Your task to perform on an android device: turn off priority inbox in the gmail app Image 0: 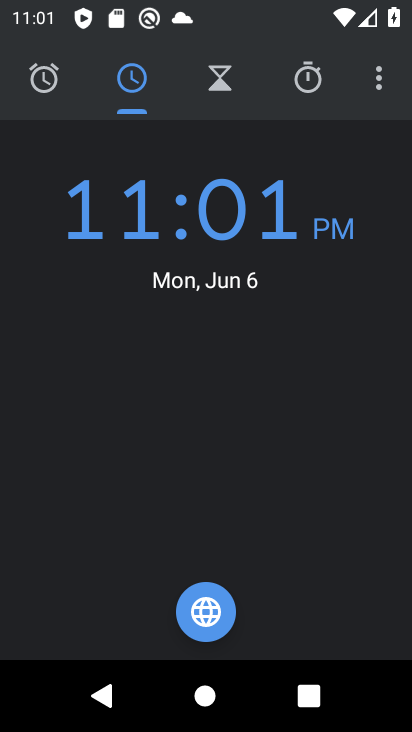
Step 0: press home button
Your task to perform on an android device: turn off priority inbox in the gmail app Image 1: 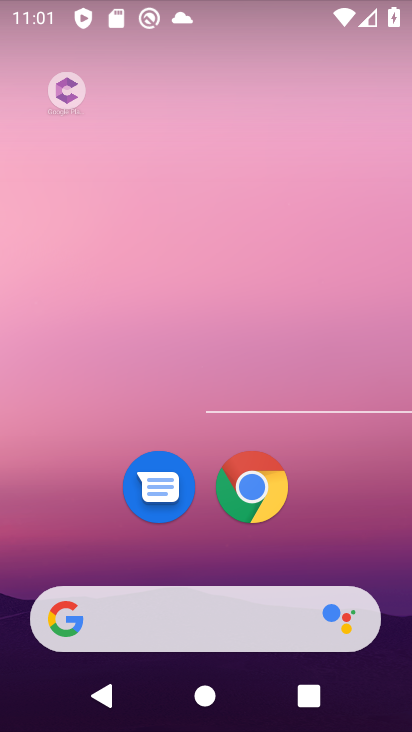
Step 1: drag from (326, 500) to (330, 117)
Your task to perform on an android device: turn off priority inbox in the gmail app Image 2: 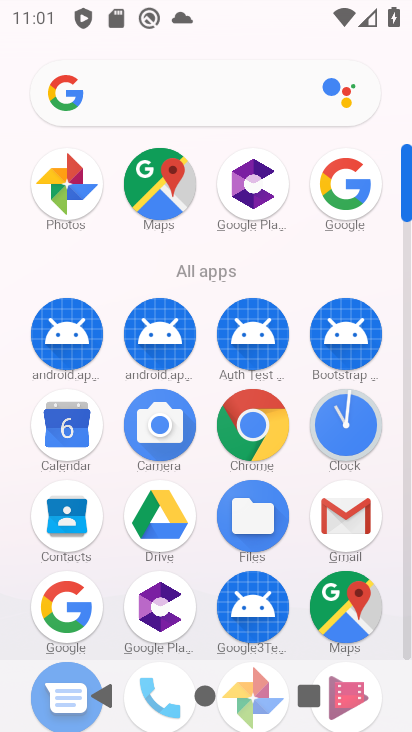
Step 2: click (325, 540)
Your task to perform on an android device: turn off priority inbox in the gmail app Image 3: 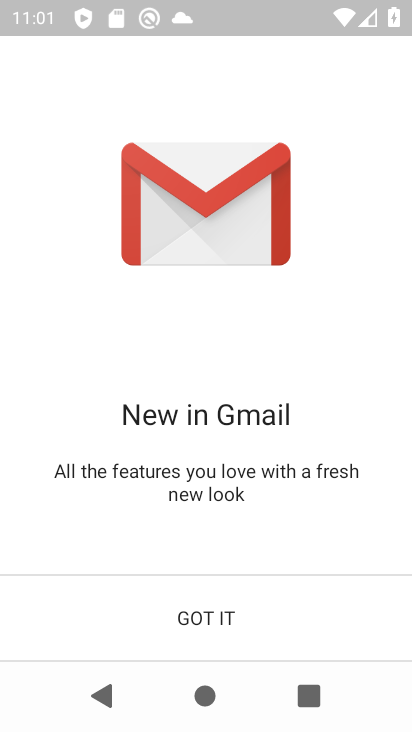
Step 3: click (147, 591)
Your task to perform on an android device: turn off priority inbox in the gmail app Image 4: 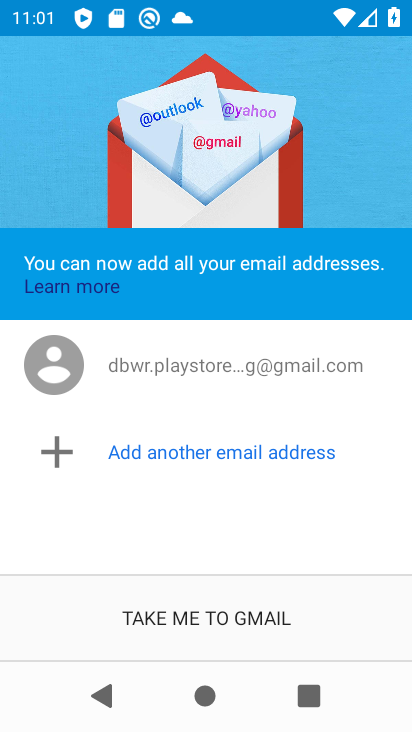
Step 4: click (215, 628)
Your task to perform on an android device: turn off priority inbox in the gmail app Image 5: 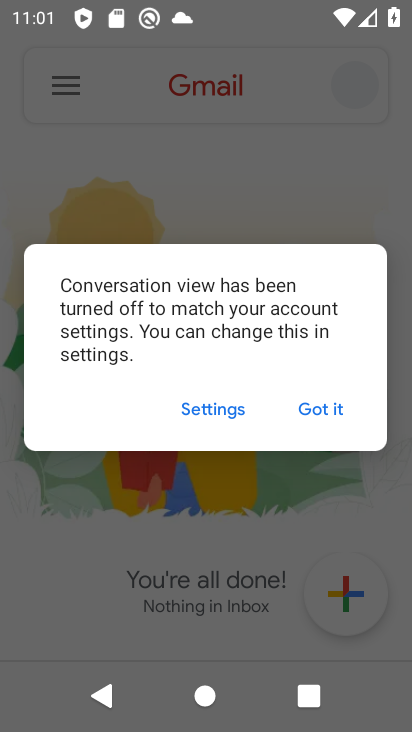
Step 5: click (301, 411)
Your task to perform on an android device: turn off priority inbox in the gmail app Image 6: 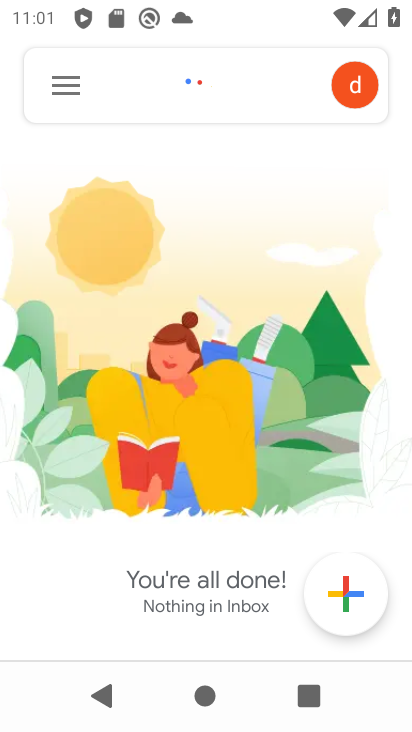
Step 6: click (59, 99)
Your task to perform on an android device: turn off priority inbox in the gmail app Image 7: 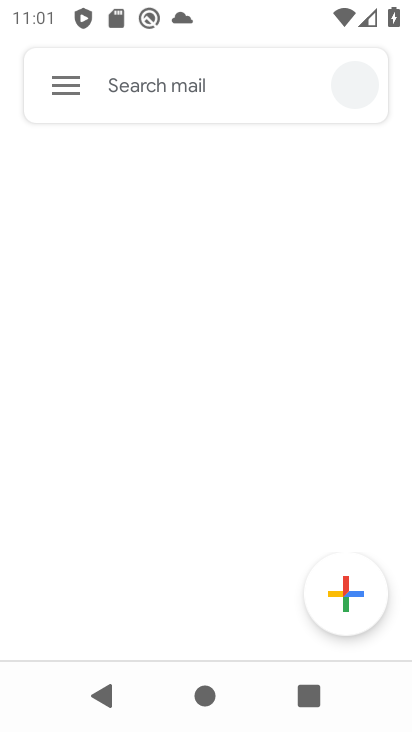
Step 7: drag from (128, 612) to (165, 166)
Your task to perform on an android device: turn off priority inbox in the gmail app Image 8: 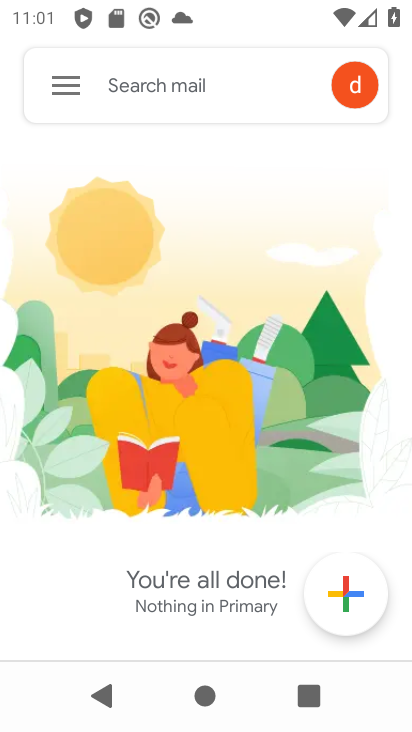
Step 8: click (51, 99)
Your task to perform on an android device: turn off priority inbox in the gmail app Image 9: 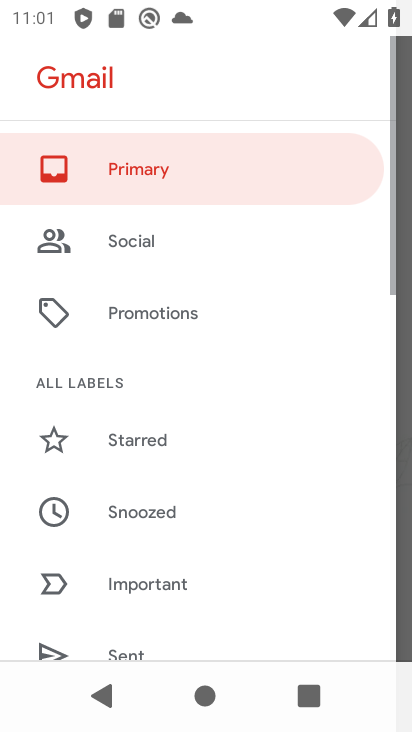
Step 9: drag from (122, 535) to (159, 93)
Your task to perform on an android device: turn off priority inbox in the gmail app Image 10: 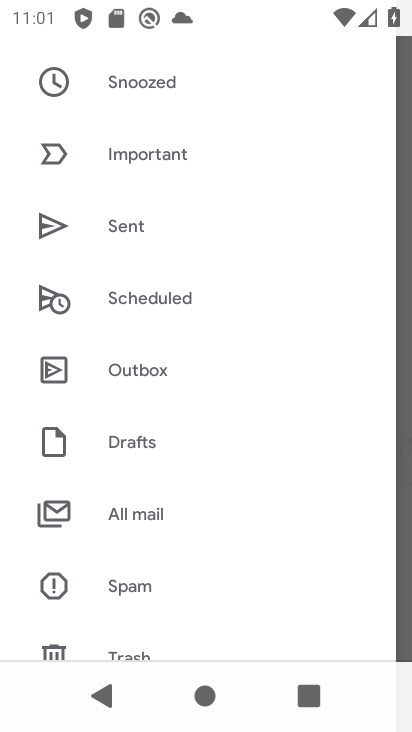
Step 10: drag from (174, 582) to (193, 172)
Your task to perform on an android device: turn off priority inbox in the gmail app Image 11: 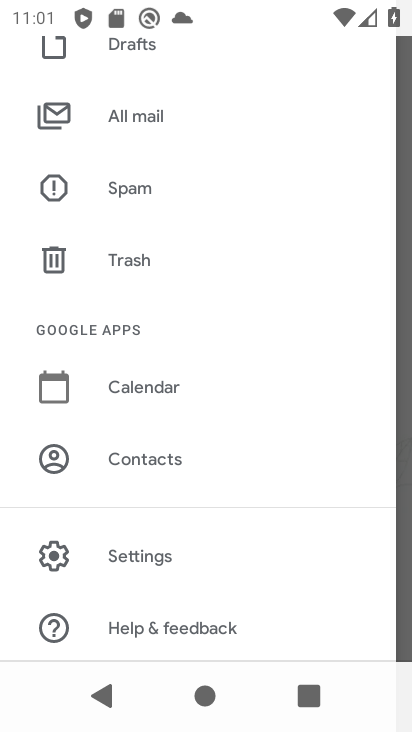
Step 11: click (179, 550)
Your task to perform on an android device: turn off priority inbox in the gmail app Image 12: 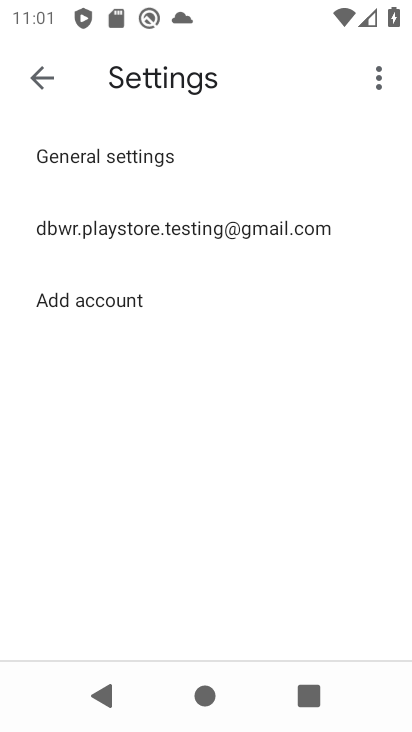
Step 12: click (180, 220)
Your task to perform on an android device: turn off priority inbox in the gmail app Image 13: 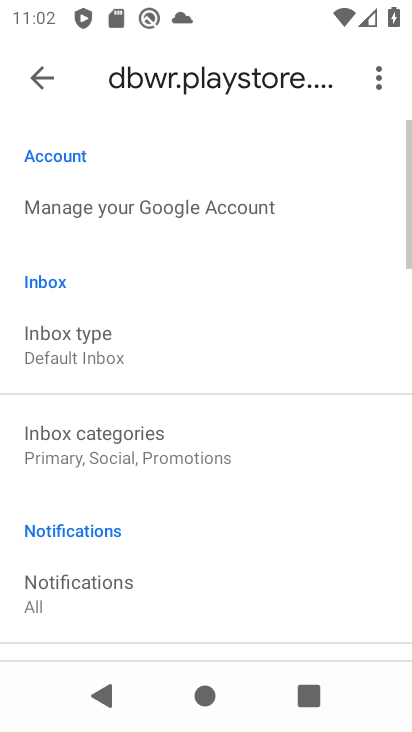
Step 13: click (171, 355)
Your task to perform on an android device: turn off priority inbox in the gmail app Image 14: 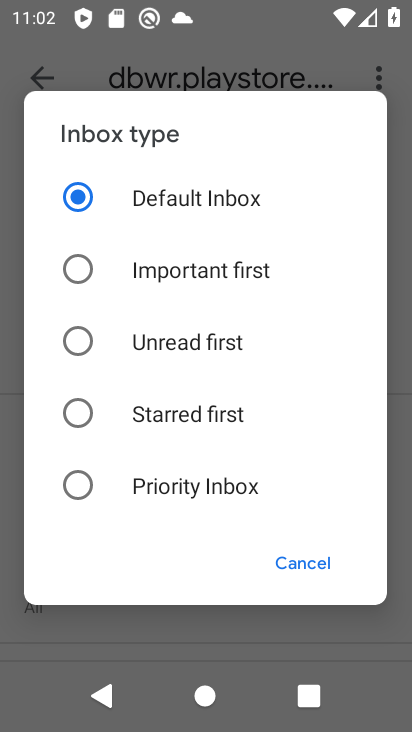
Step 14: task complete